Your task to perform on an android device: Search for jbl charge 4 on bestbuy.com, select the first entry, and add it to the cart. Image 0: 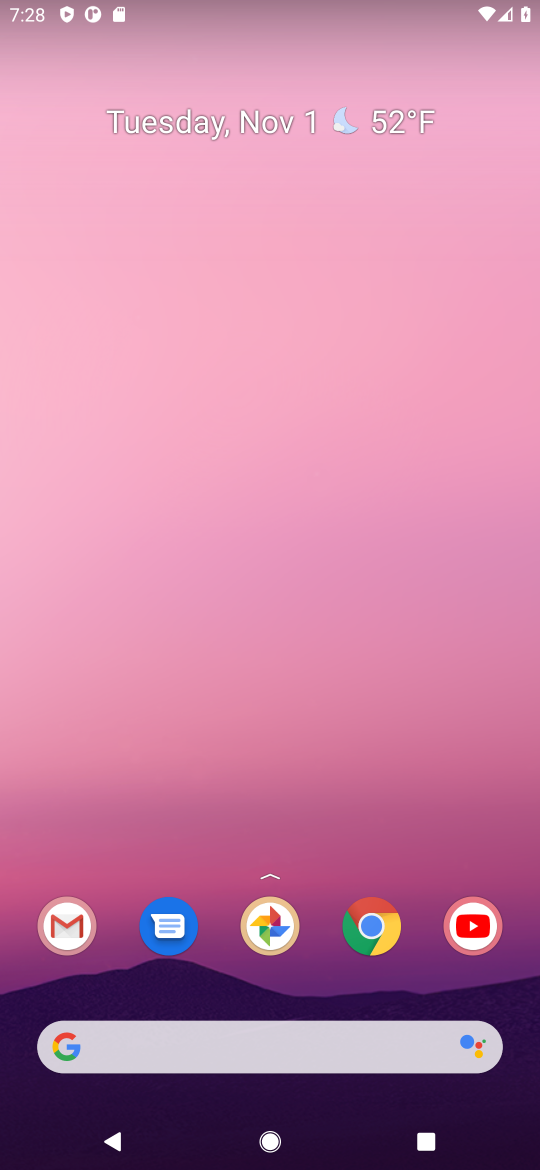
Step 0: click (385, 937)
Your task to perform on an android device: Search for jbl charge 4 on bestbuy.com, select the first entry, and add it to the cart. Image 1: 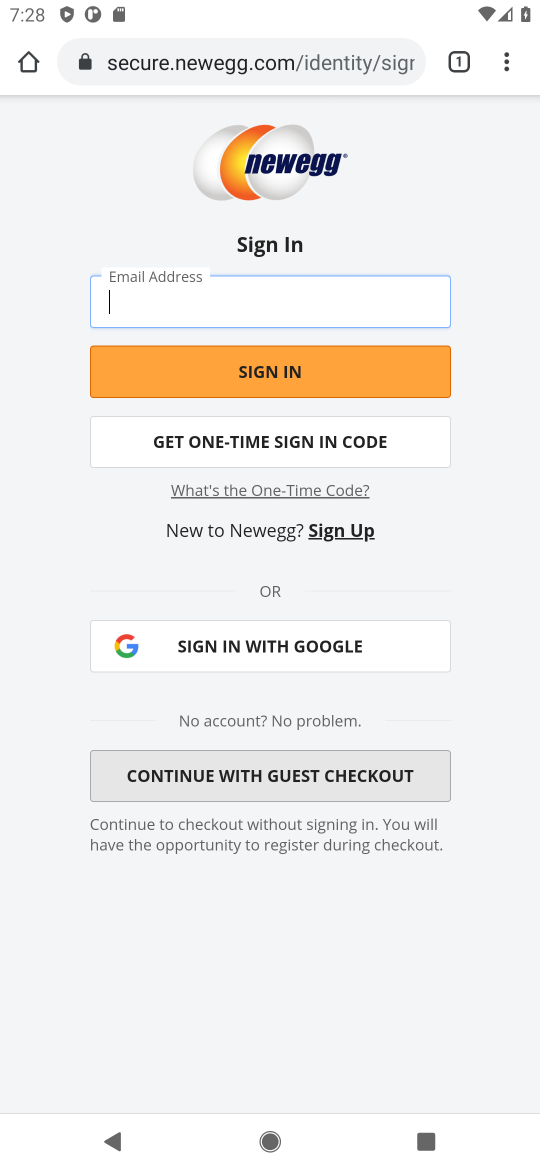
Step 1: click (198, 64)
Your task to perform on an android device: Search for jbl charge 4 on bestbuy.com, select the first entry, and add it to the cart. Image 2: 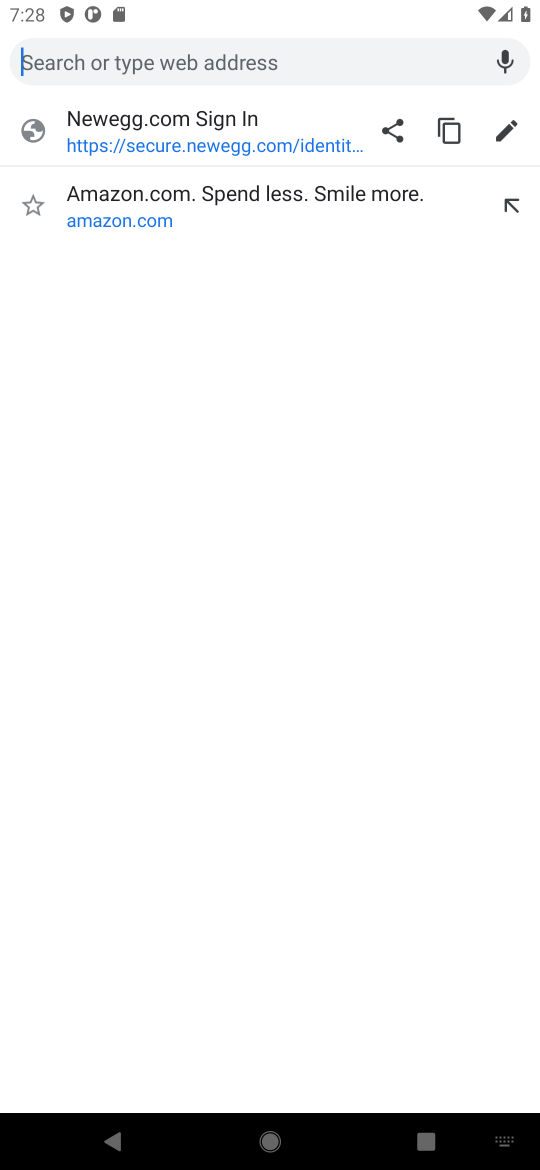
Step 2: type "bestbuy.com"
Your task to perform on an android device: Search for jbl charge 4 on bestbuy.com, select the first entry, and add it to the cart. Image 3: 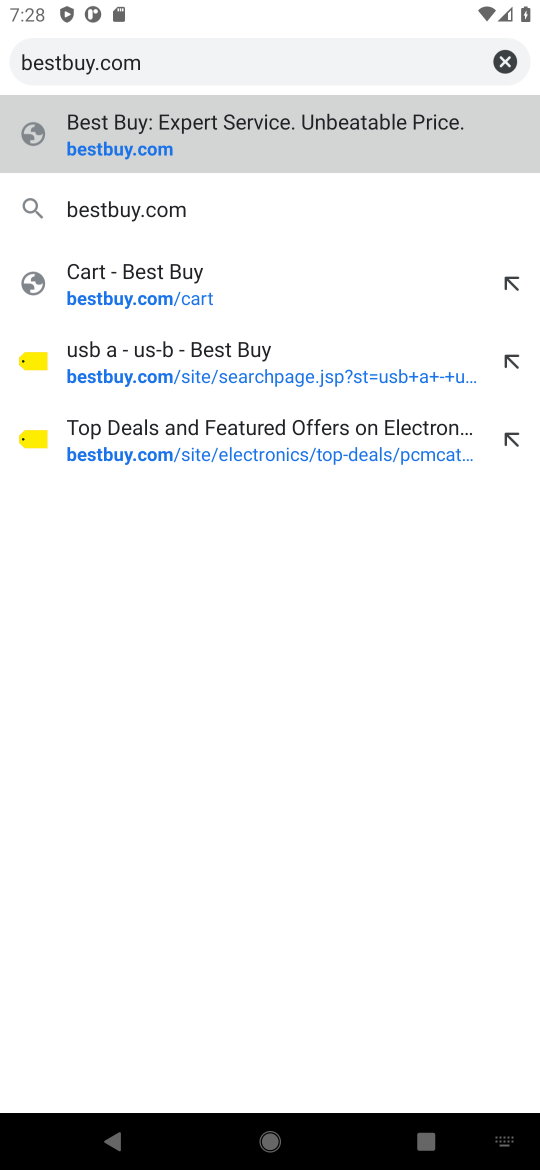
Step 3: type ""
Your task to perform on an android device: Search for jbl charge 4 on bestbuy.com, select the first entry, and add it to the cart. Image 4: 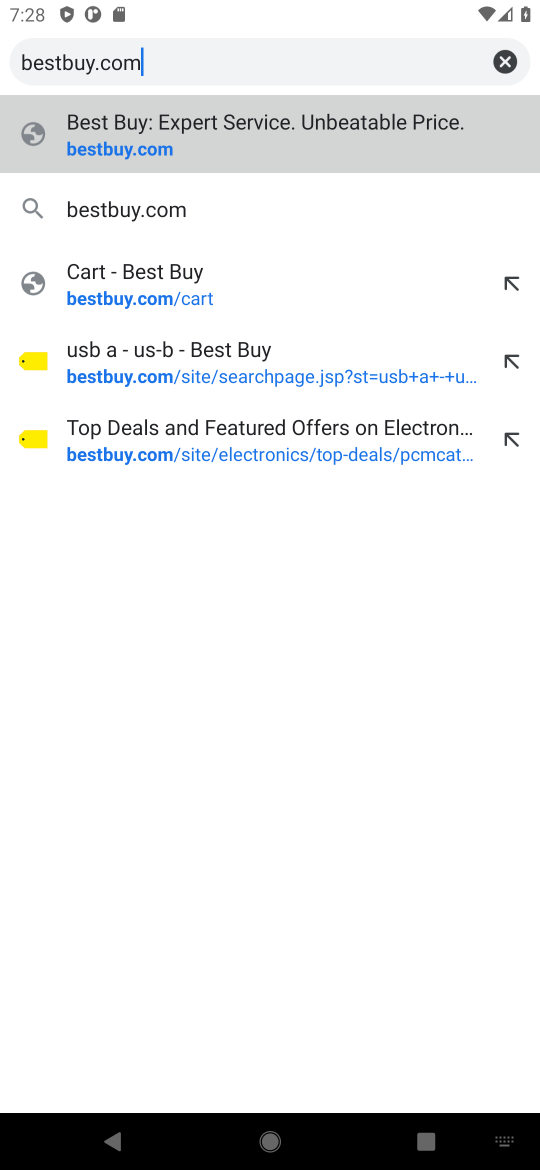
Step 4: click (101, 146)
Your task to perform on an android device: Search for jbl charge 4 on bestbuy.com, select the first entry, and add it to the cart. Image 5: 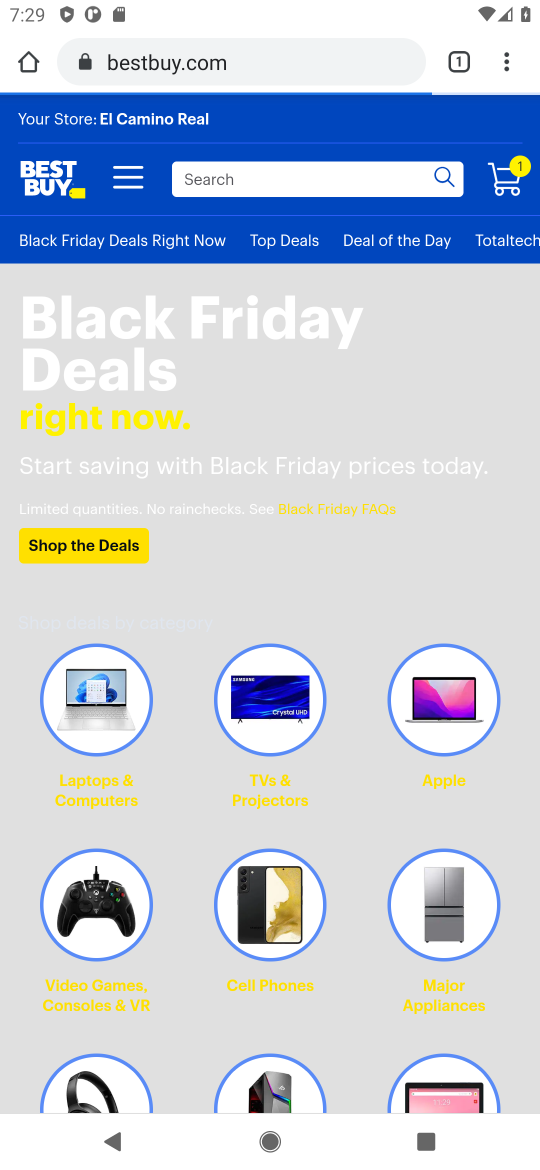
Step 5: click (203, 179)
Your task to perform on an android device: Search for jbl charge 4 on bestbuy.com, select the first entry, and add it to the cart. Image 6: 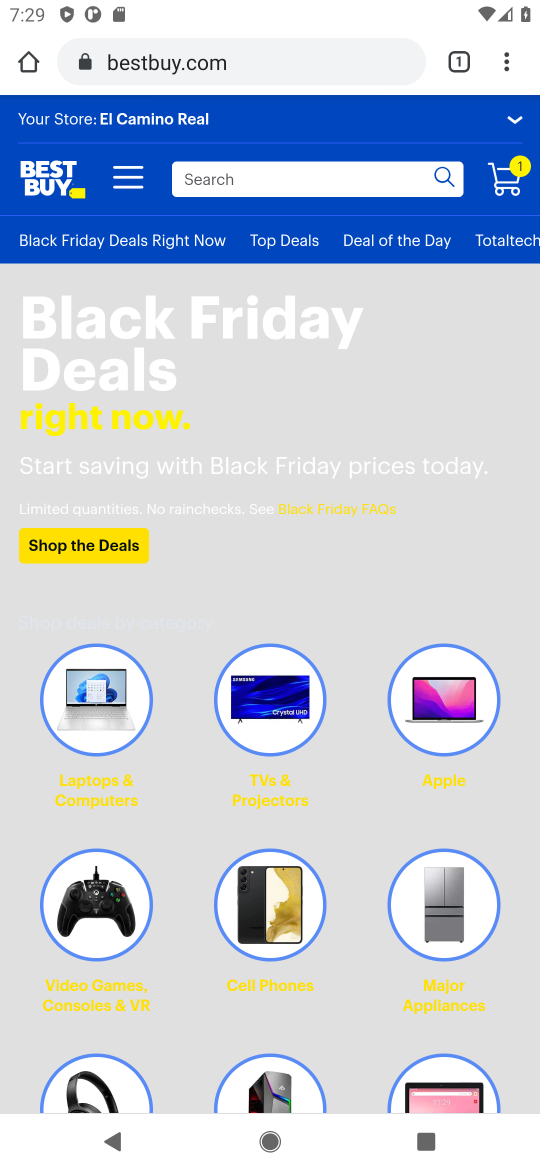
Step 6: click (255, 175)
Your task to perform on an android device: Search for jbl charge 4 on bestbuy.com, select the first entry, and add it to the cart. Image 7: 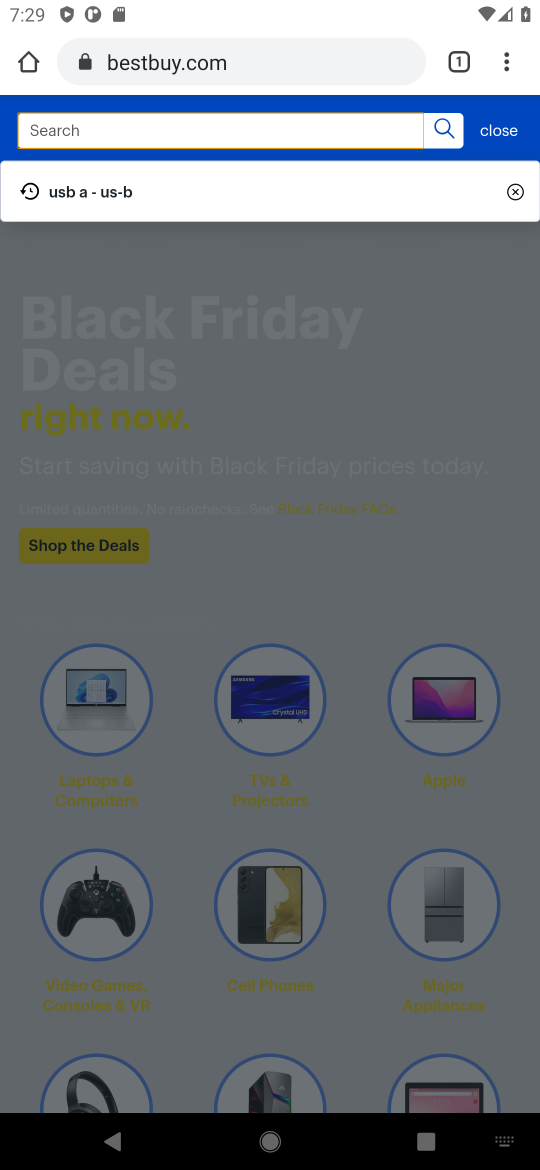
Step 7: type "jbl charge 4"
Your task to perform on an android device: Search for jbl charge 4 on bestbuy.com, select the first entry, and add it to the cart. Image 8: 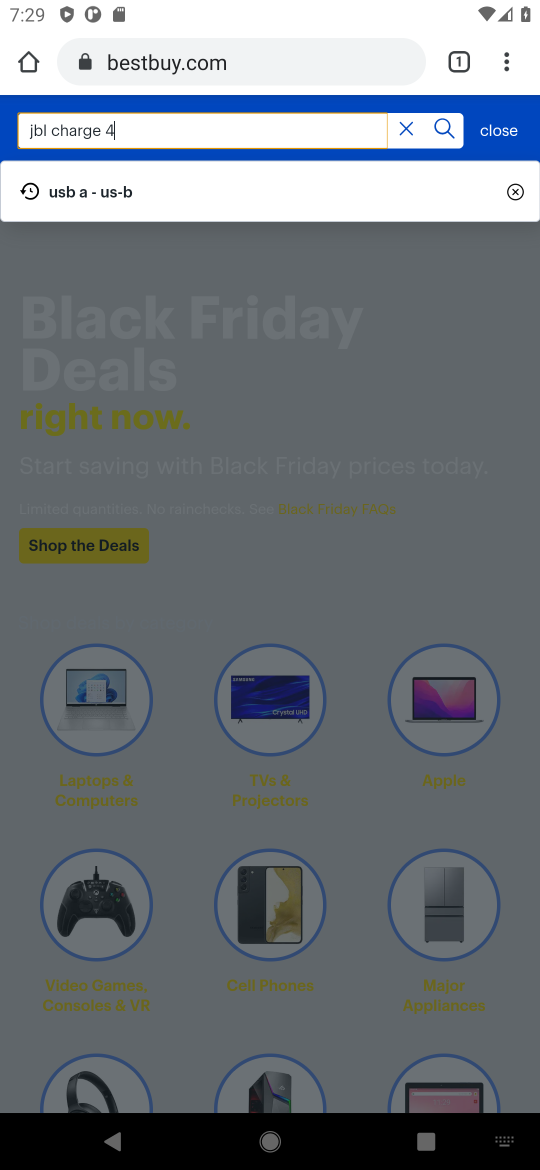
Step 8: type ""
Your task to perform on an android device: Search for jbl charge 4 on bestbuy.com, select the first entry, and add it to the cart. Image 9: 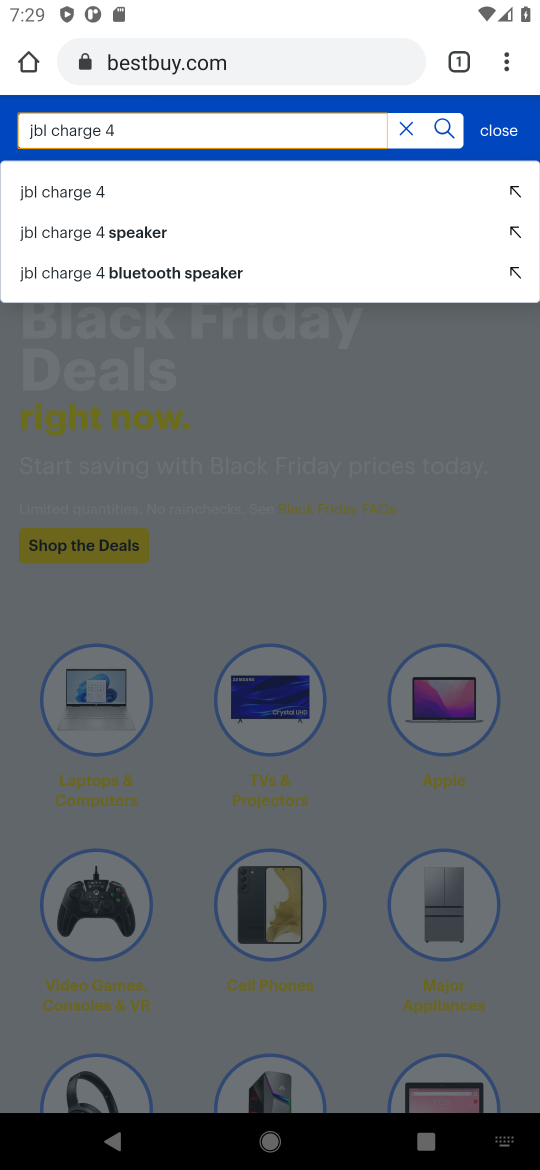
Step 9: click (73, 193)
Your task to perform on an android device: Search for jbl charge 4 on bestbuy.com, select the first entry, and add it to the cart. Image 10: 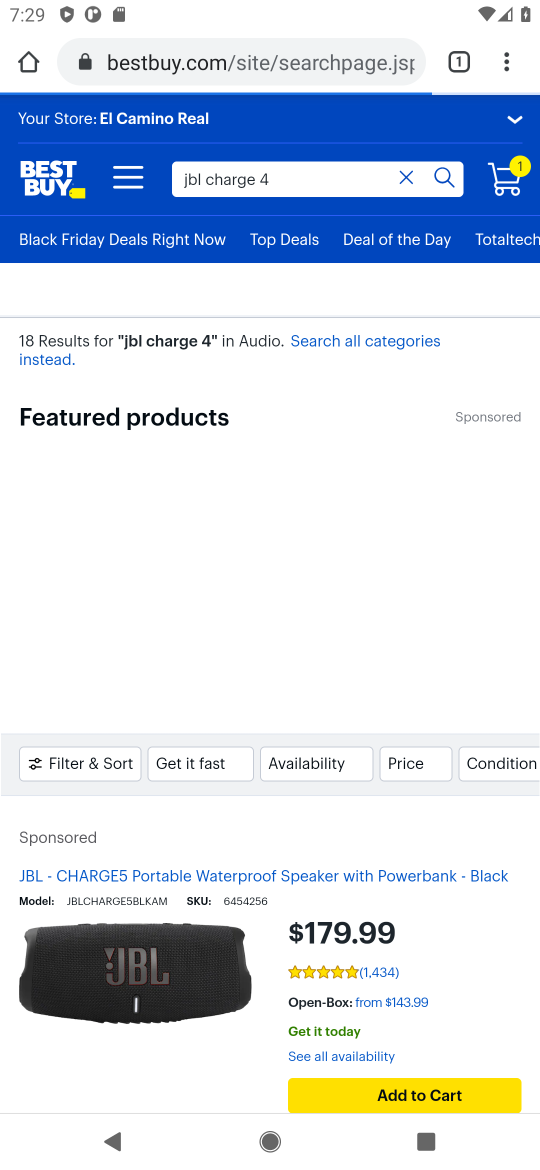
Step 10: drag from (207, 912) to (266, 221)
Your task to perform on an android device: Search for jbl charge 4 on bestbuy.com, select the first entry, and add it to the cart. Image 11: 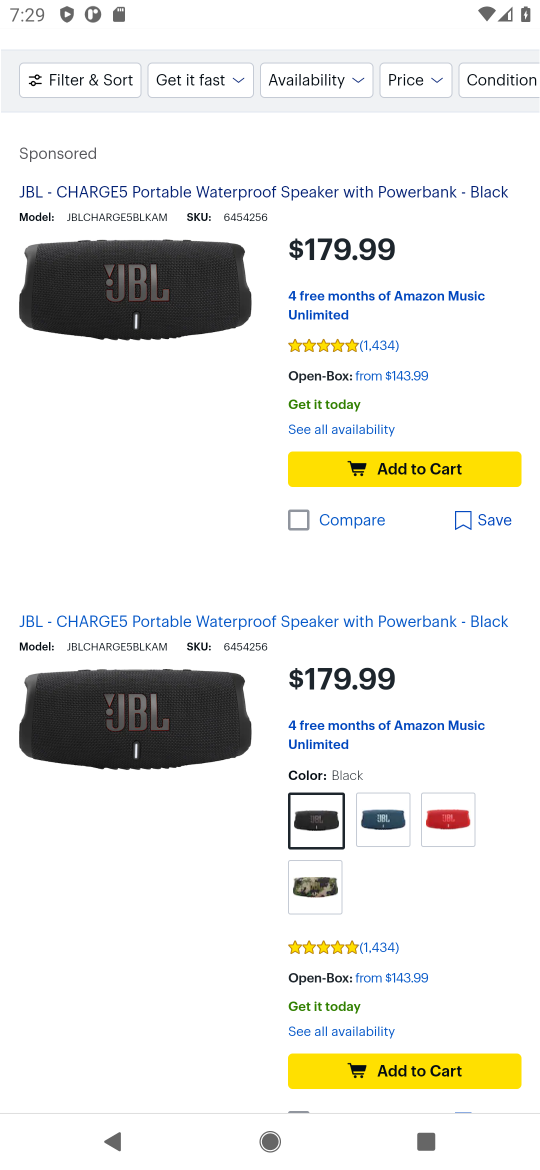
Step 11: drag from (133, 1010) to (186, 393)
Your task to perform on an android device: Search for jbl charge 4 on bestbuy.com, select the first entry, and add it to the cart. Image 12: 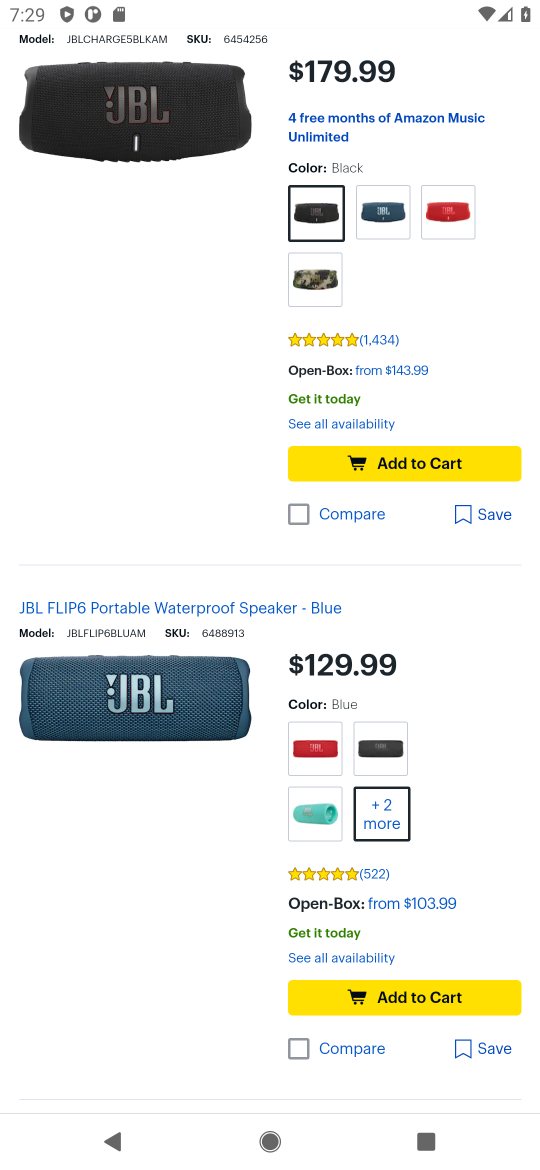
Step 12: drag from (305, 874) to (245, 366)
Your task to perform on an android device: Search for jbl charge 4 on bestbuy.com, select the first entry, and add it to the cart. Image 13: 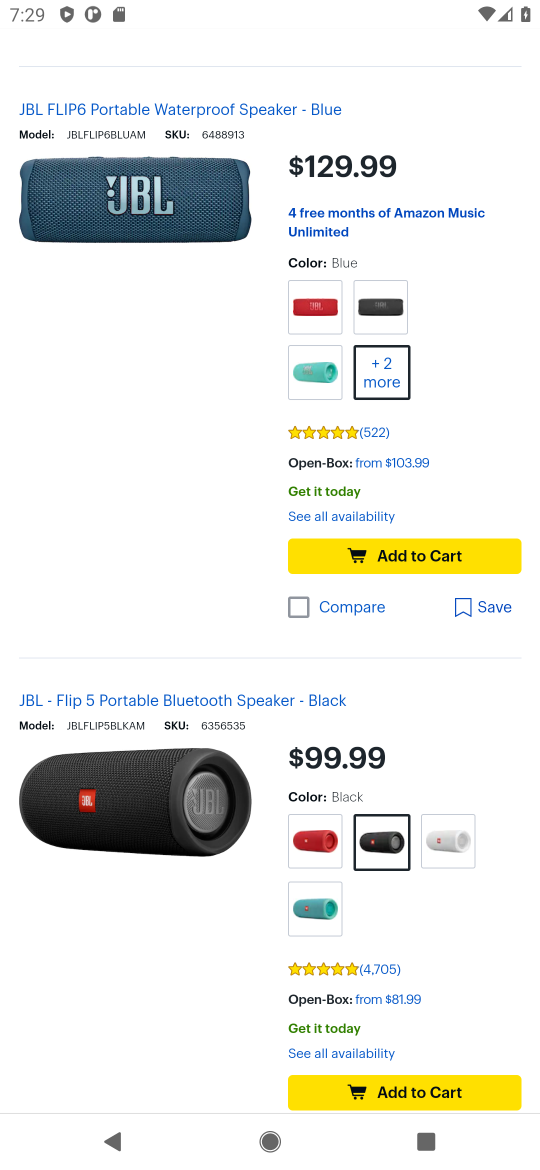
Step 13: drag from (194, 1018) to (214, 295)
Your task to perform on an android device: Search for jbl charge 4 on bestbuy.com, select the first entry, and add it to the cart. Image 14: 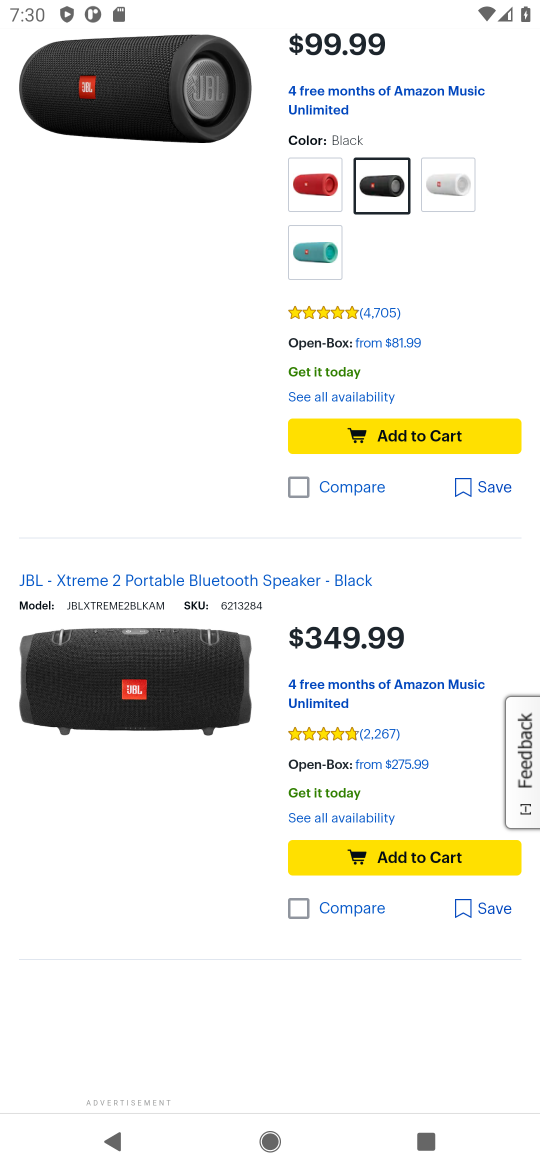
Step 14: click (396, 425)
Your task to perform on an android device: Search for jbl charge 4 on bestbuy.com, select the first entry, and add it to the cart. Image 15: 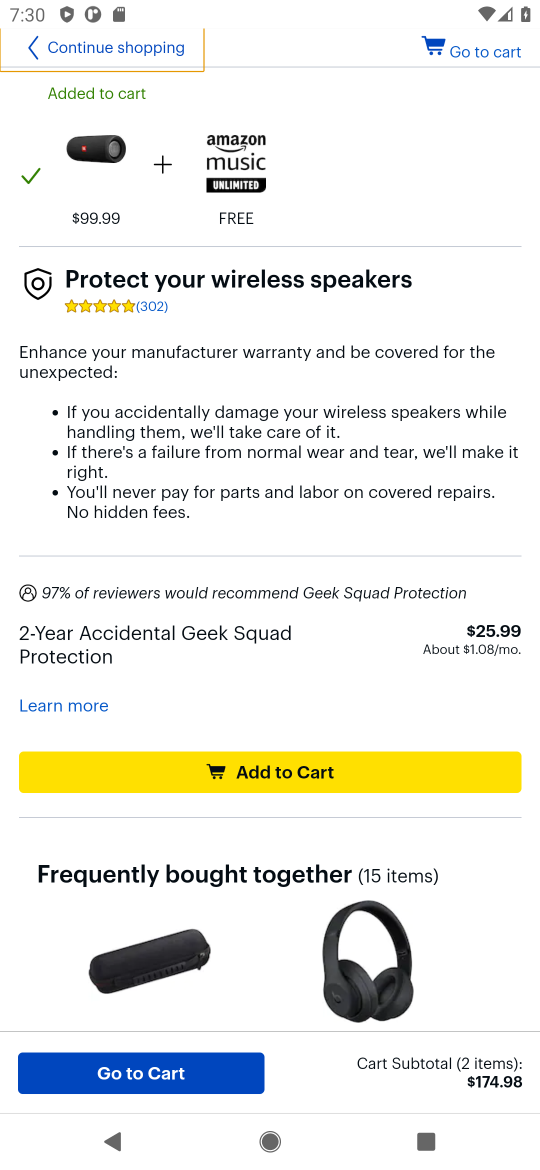
Step 15: click (122, 1073)
Your task to perform on an android device: Search for jbl charge 4 on bestbuy.com, select the first entry, and add it to the cart. Image 16: 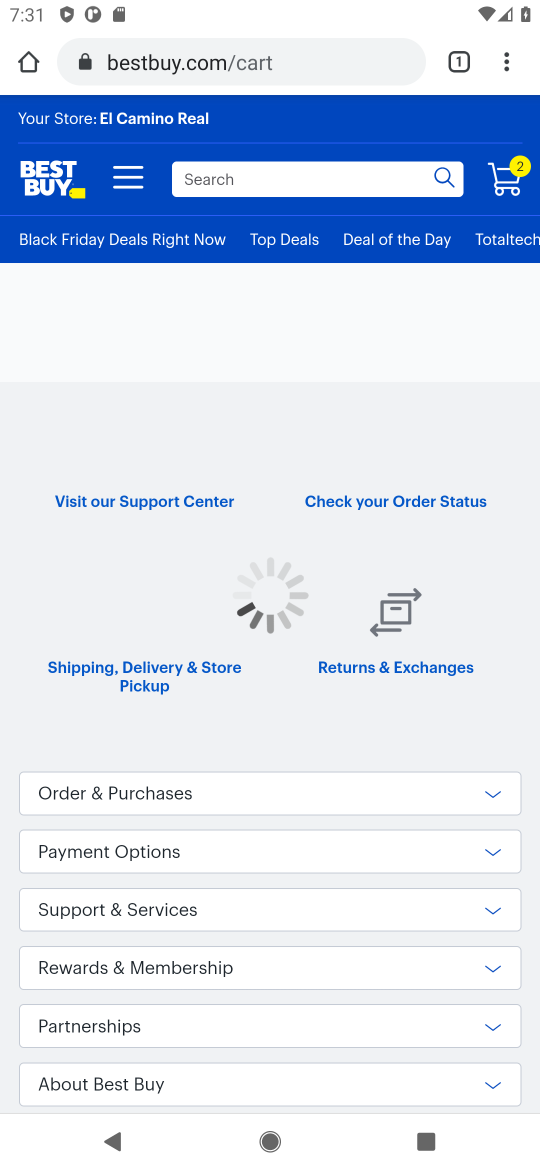
Step 16: task complete